Your task to perform on an android device: make emails show in primary in the gmail app Image 0: 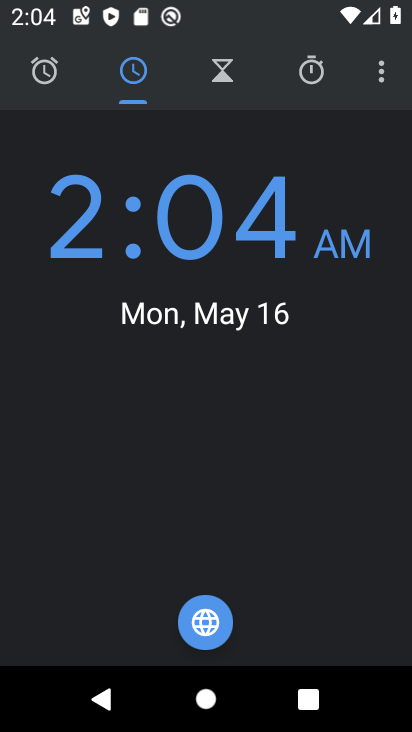
Step 0: press home button
Your task to perform on an android device: make emails show in primary in the gmail app Image 1: 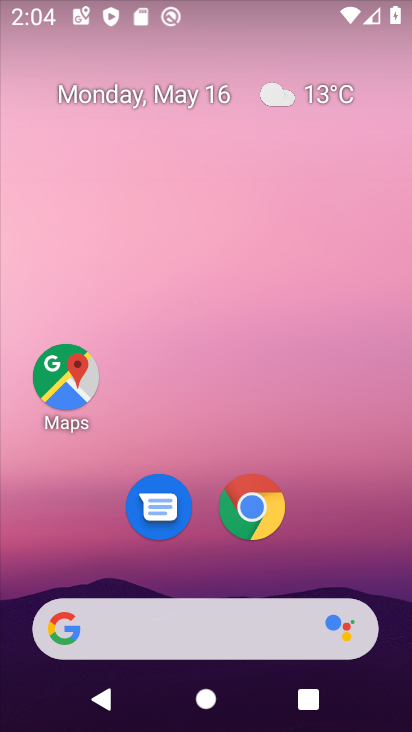
Step 1: drag from (390, 557) to (391, 117)
Your task to perform on an android device: make emails show in primary in the gmail app Image 2: 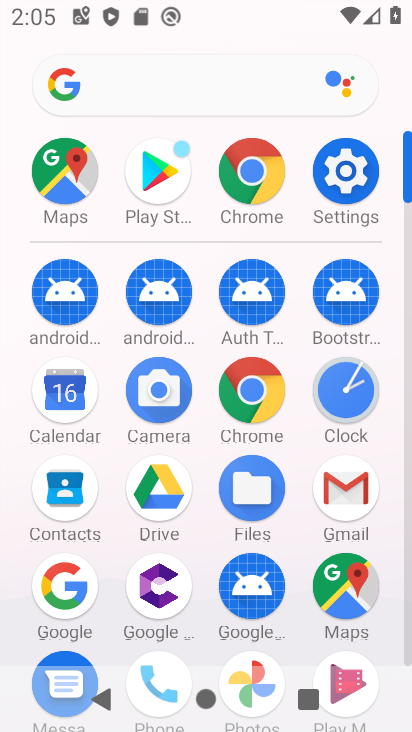
Step 2: click (358, 491)
Your task to perform on an android device: make emails show in primary in the gmail app Image 3: 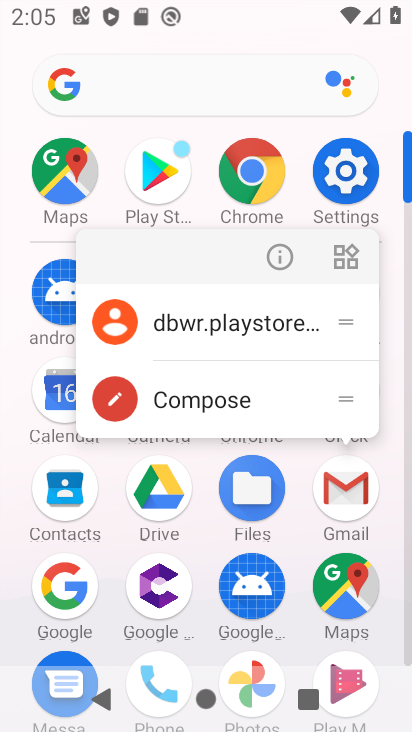
Step 3: click (358, 491)
Your task to perform on an android device: make emails show in primary in the gmail app Image 4: 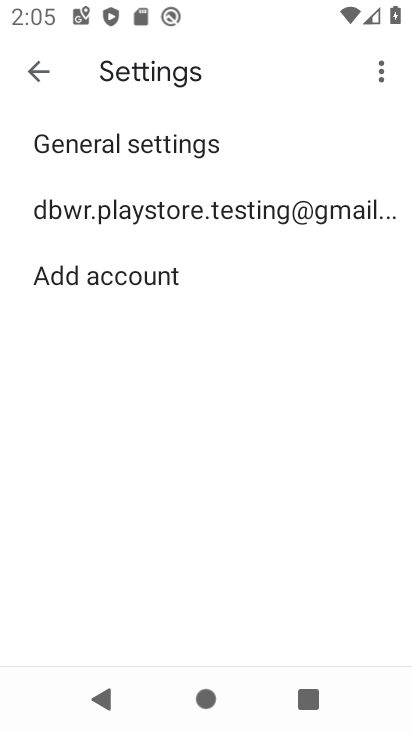
Step 4: click (247, 215)
Your task to perform on an android device: make emails show in primary in the gmail app Image 5: 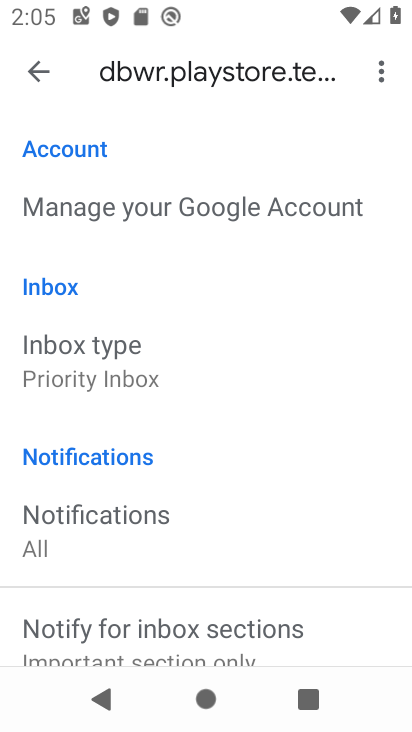
Step 5: drag from (344, 604) to (350, 458)
Your task to perform on an android device: make emails show in primary in the gmail app Image 6: 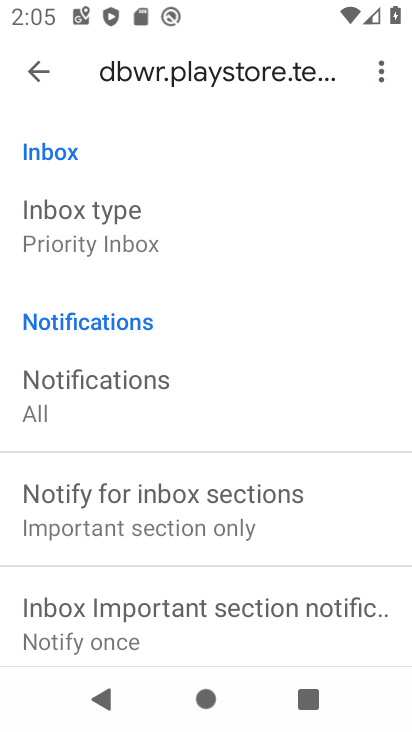
Step 6: drag from (351, 649) to (356, 465)
Your task to perform on an android device: make emails show in primary in the gmail app Image 7: 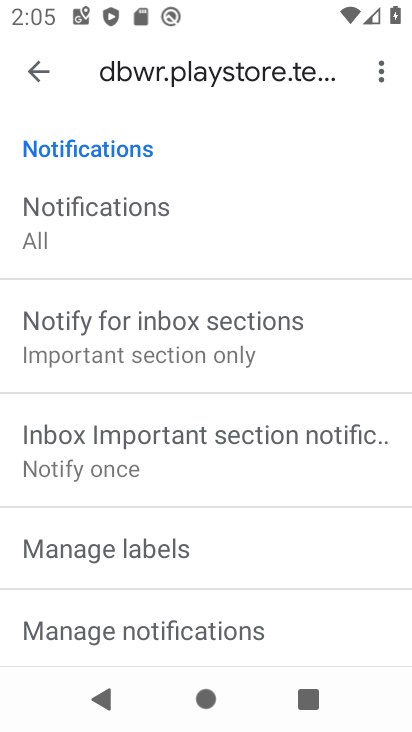
Step 7: drag from (335, 633) to (331, 476)
Your task to perform on an android device: make emails show in primary in the gmail app Image 8: 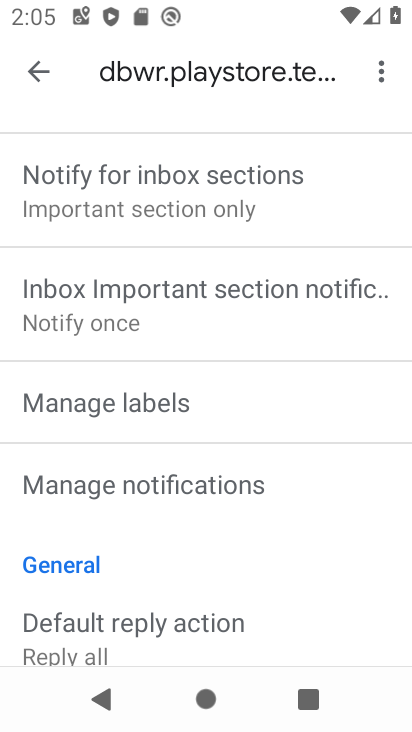
Step 8: drag from (336, 632) to (343, 487)
Your task to perform on an android device: make emails show in primary in the gmail app Image 9: 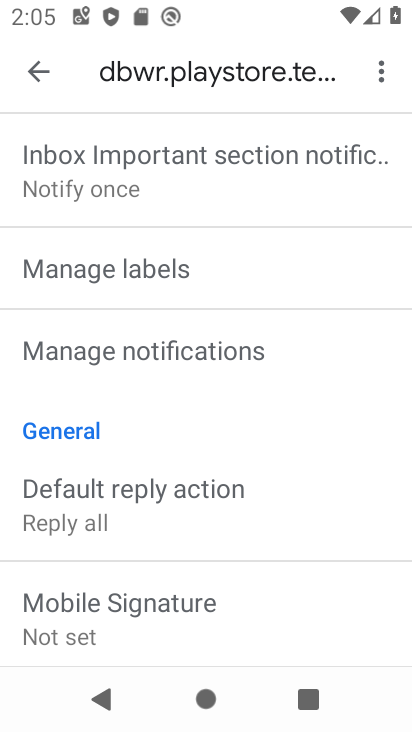
Step 9: drag from (332, 624) to (338, 507)
Your task to perform on an android device: make emails show in primary in the gmail app Image 10: 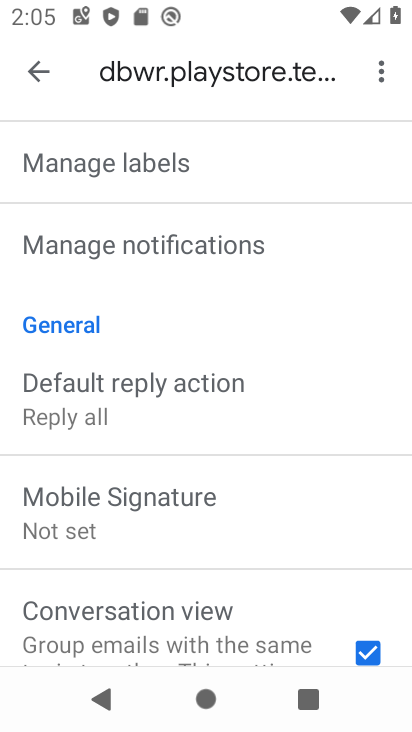
Step 10: drag from (331, 585) to (342, 472)
Your task to perform on an android device: make emails show in primary in the gmail app Image 11: 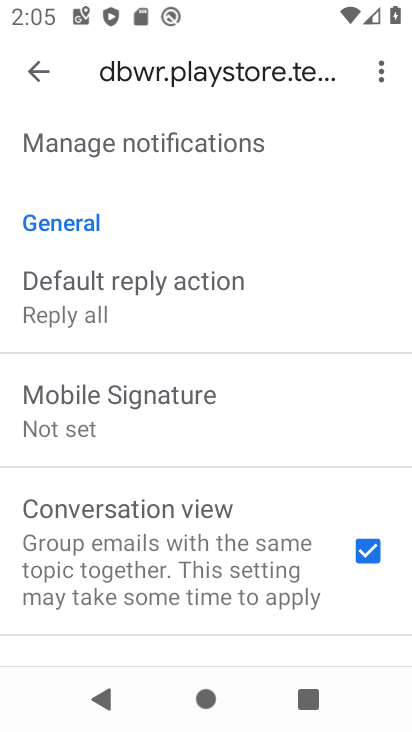
Step 11: drag from (272, 615) to (288, 439)
Your task to perform on an android device: make emails show in primary in the gmail app Image 12: 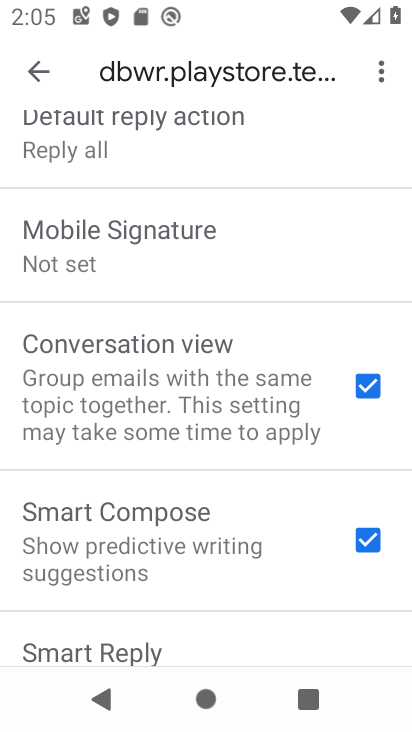
Step 12: drag from (291, 600) to (291, 494)
Your task to perform on an android device: make emails show in primary in the gmail app Image 13: 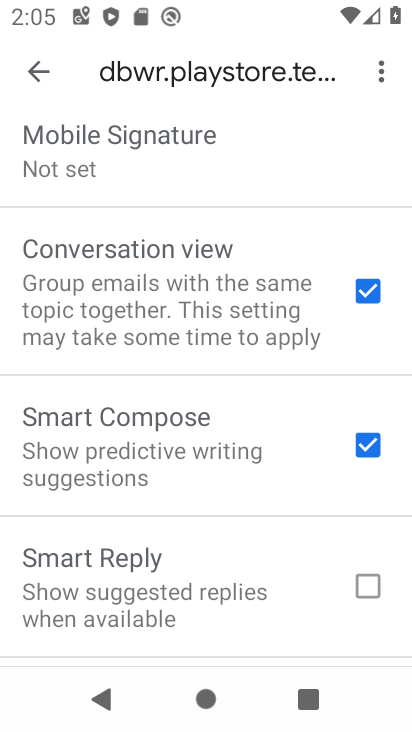
Step 13: drag from (310, 231) to (309, 455)
Your task to perform on an android device: make emails show in primary in the gmail app Image 14: 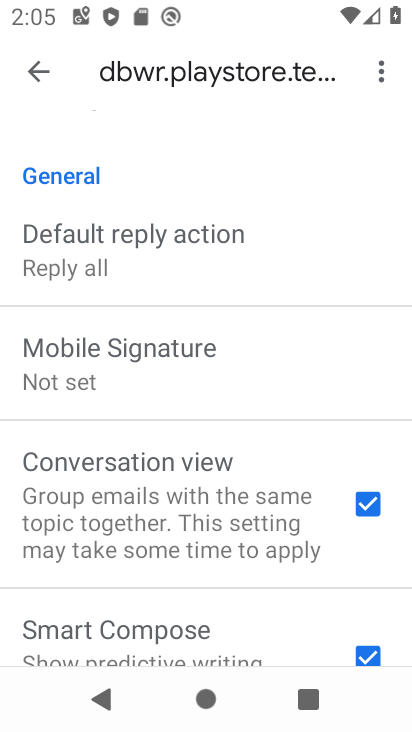
Step 14: drag from (294, 271) to (297, 433)
Your task to perform on an android device: make emails show in primary in the gmail app Image 15: 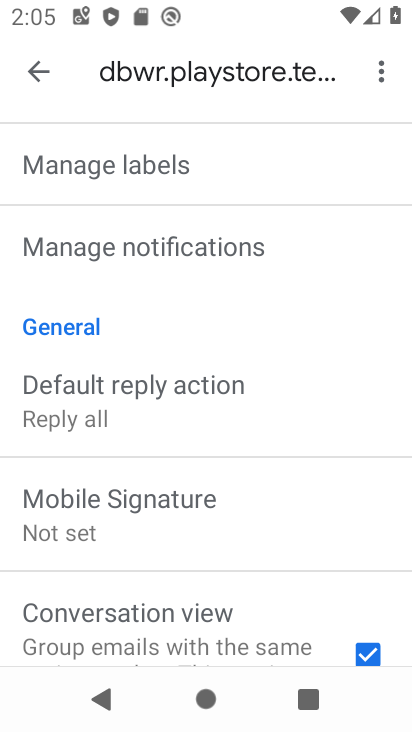
Step 15: drag from (298, 221) to (306, 413)
Your task to perform on an android device: make emails show in primary in the gmail app Image 16: 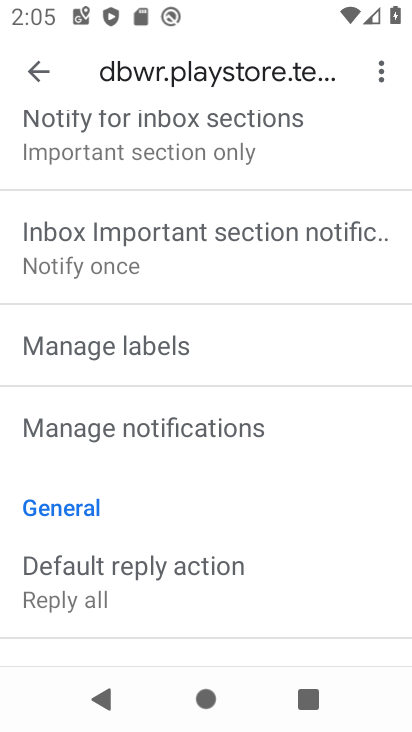
Step 16: drag from (295, 162) to (287, 406)
Your task to perform on an android device: make emails show in primary in the gmail app Image 17: 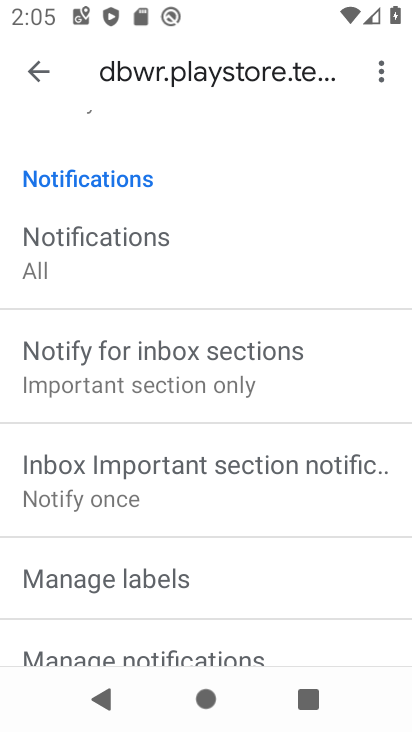
Step 17: drag from (280, 183) to (278, 409)
Your task to perform on an android device: make emails show in primary in the gmail app Image 18: 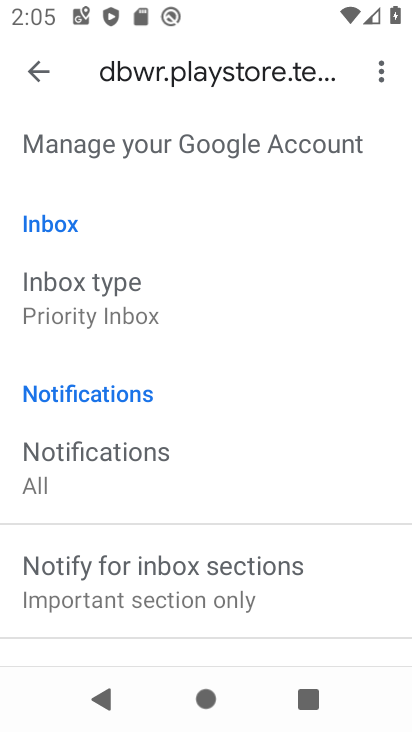
Step 18: click (142, 325)
Your task to perform on an android device: make emails show in primary in the gmail app Image 19: 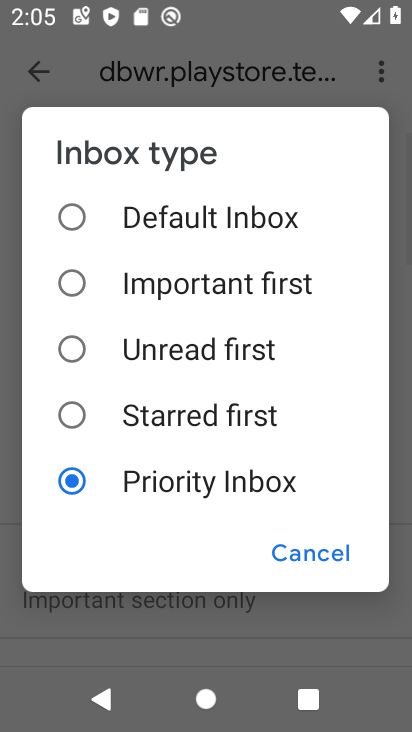
Step 19: click (161, 211)
Your task to perform on an android device: make emails show in primary in the gmail app Image 20: 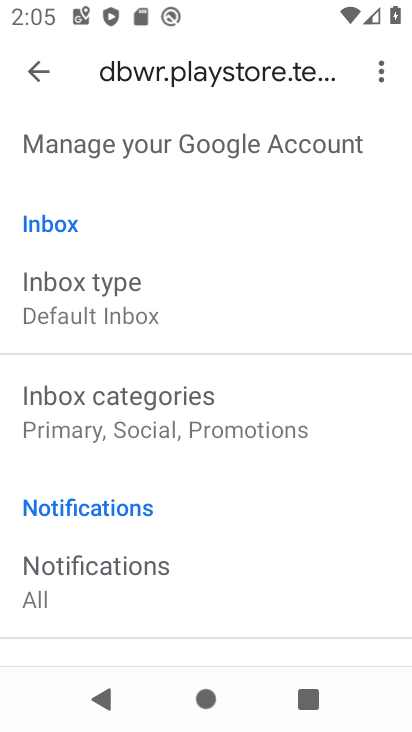
Step 20: click (185, 412)
Your task to perform on an android device: make emails show in primary in the gmail app Image 21: 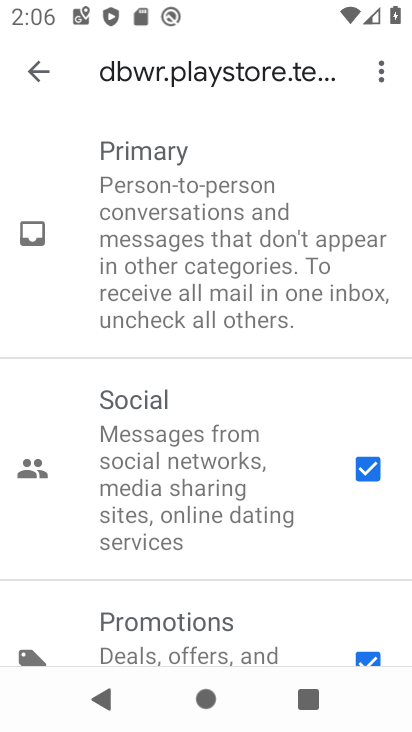
Step 21: click (357, 456)
Your task to perform on an android device: make emails show in primary in the gmail app Image 22: 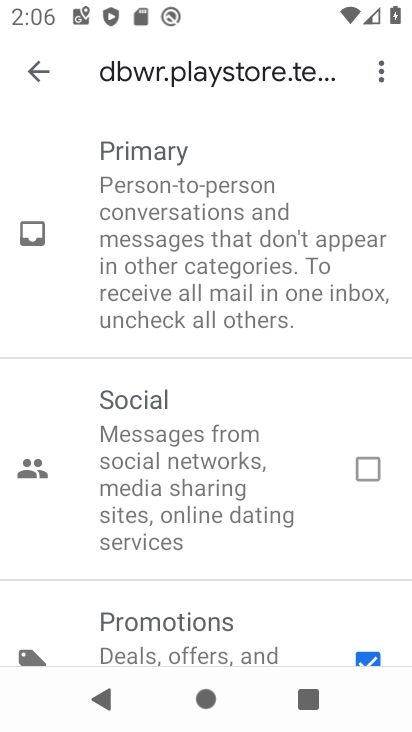
Step 22: drag from (295, 585) to (297, 422)
Your task to perform on an android device: make emails show in primary in the gmail app Image 23: 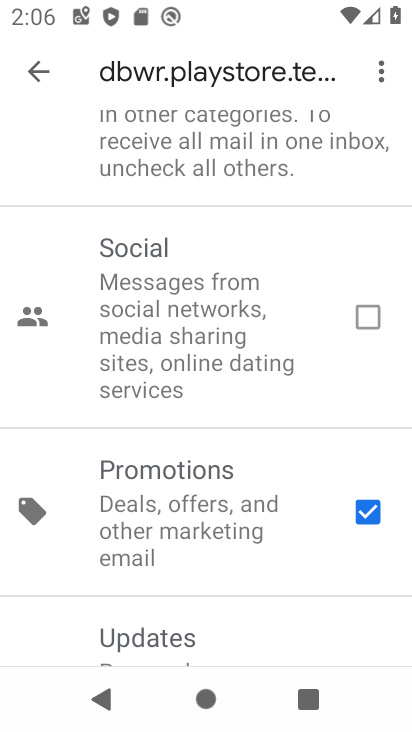
Step 23: click (357, 515)
Your task to perform on an android device: make emails show in primary in the gmail app Image 24: 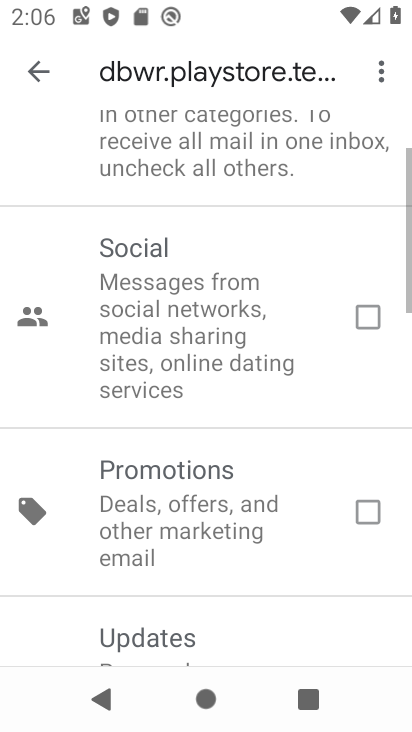
Step 24: task complete